Your task to perform on an android device: check android version Image 0: 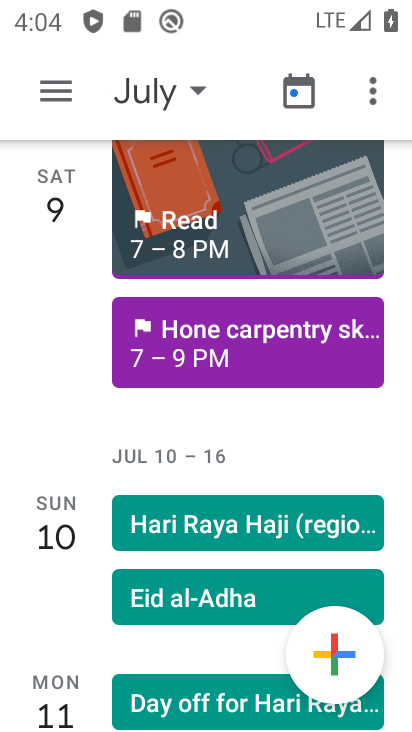
Step 0: press home button
Your task to perform on an android device: check android version Image 1: 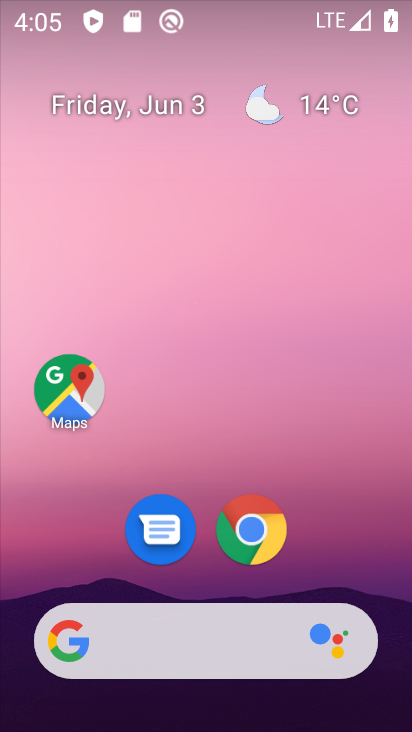
Step 1: drag from (199, 584) to (215, 70)
Your task to perform on an android device: check android version Image 2: 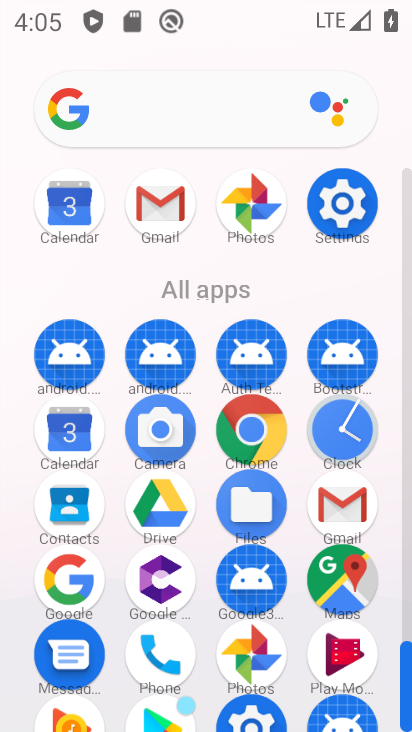
Step 2: click (345, 194)
Your task to perform on an android device: check android version Image 3: 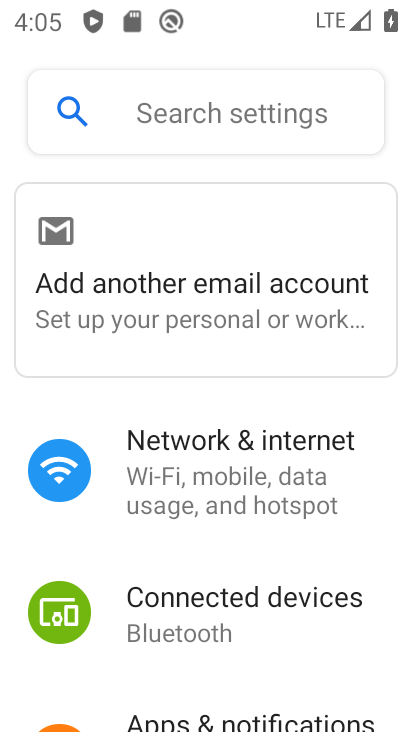
Step 3: drag from (232, 675) to (252, 36)
Your task to perform on an android device: check android version Image 4: 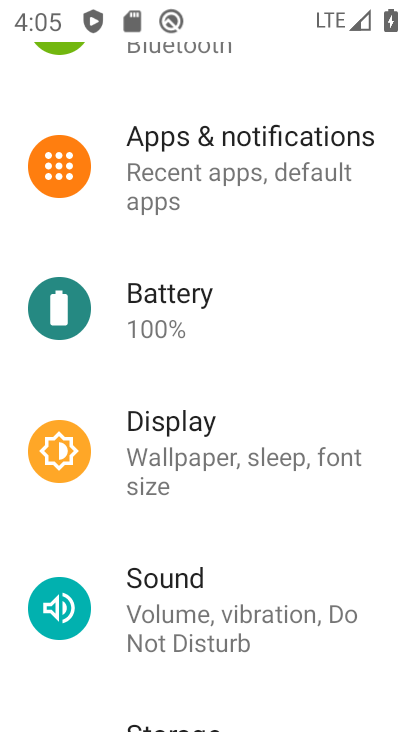
Step 4: drag from (196, 687) to (219, 26)
Your task to perform on an android device: check android version Image 5: 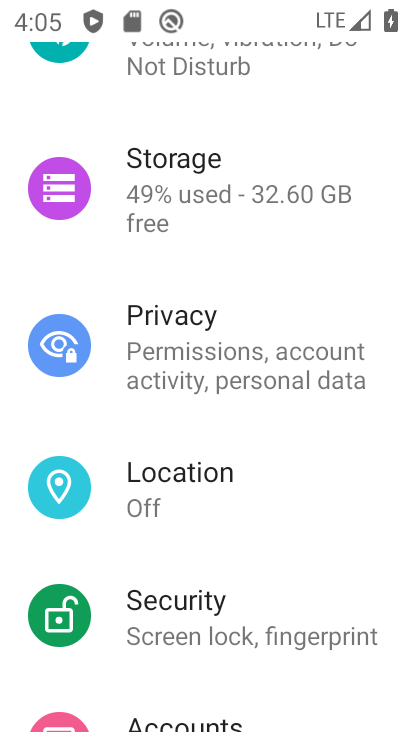
Step 5: drag from (204, 675) to (223, 63)
Your task to perform on an android device: check android version Image 6: 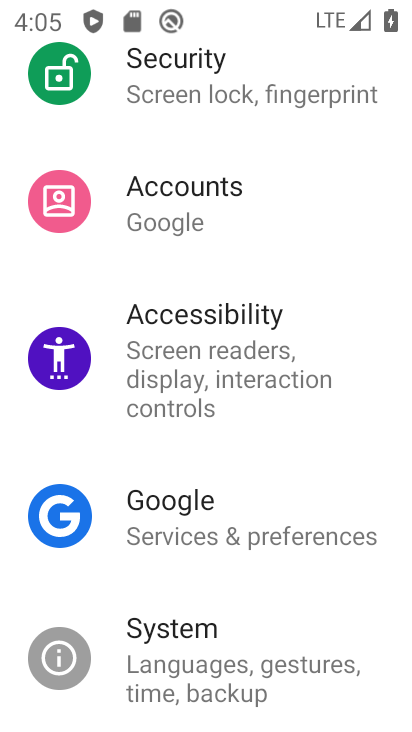
Step 6: drag from (206, 657) to (246, 128)
Your task to perform on an android device: check android version Image 7: 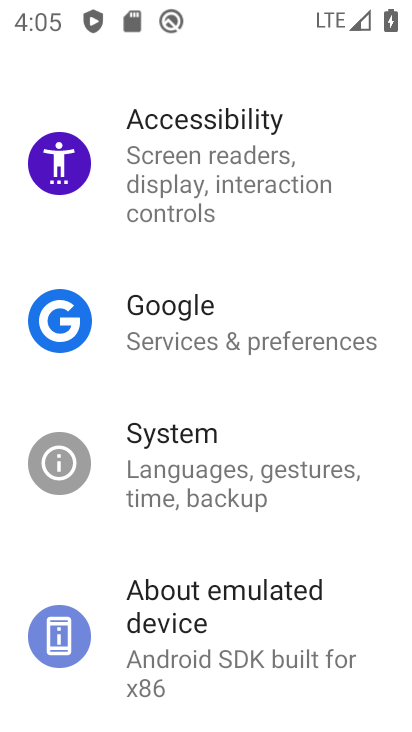
Step 7: click (216, 651)
Your task to perform on an android device: check android version Image 8: 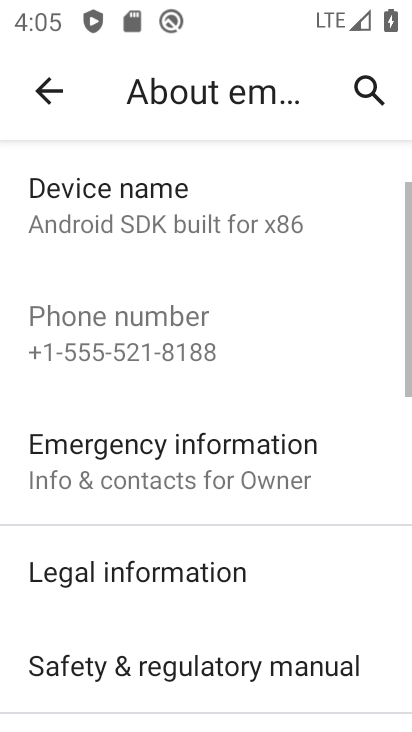
Step 8: drag from (196, 653) to (213, 249)
Your task to perform on an android device: check android version Image 9: 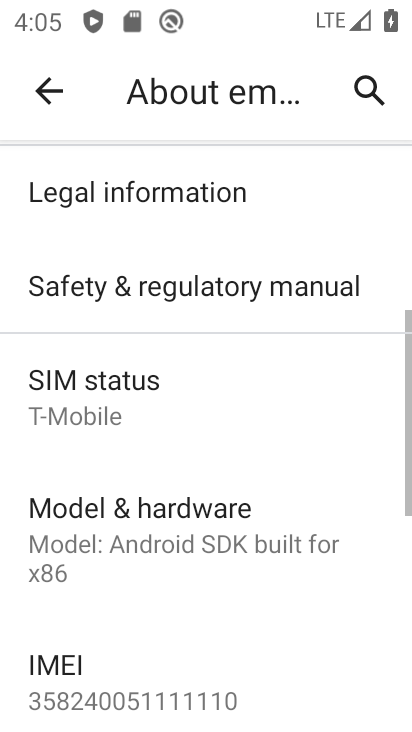
Step 9: drag from (186, 634) to (199, 255)
Your task to perform on an android device: check android version Image 10: 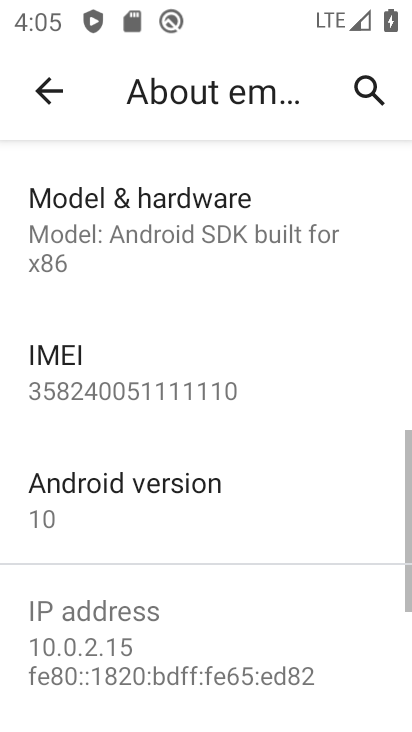
Step 10: click (125, 516)
Your task to perform on an android device: check android version Image 11: 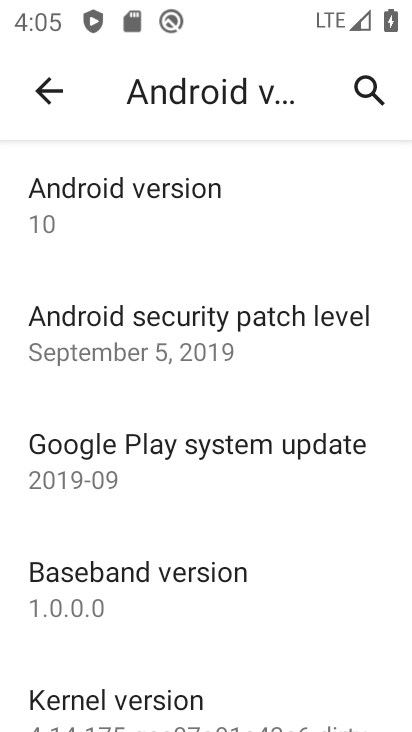
Step 11: task complete